Your task to perform on an android device: Open the web browser Image 0: 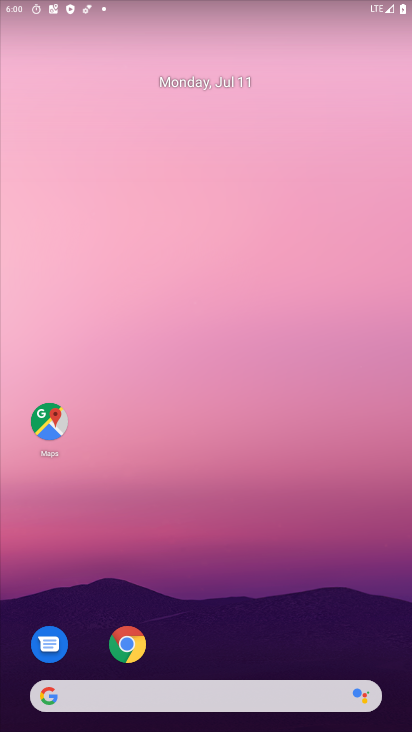
Step 0: drag from (311, 622) to (321, 0)
Your task to perform on an android device: Open the web browser Image 1: 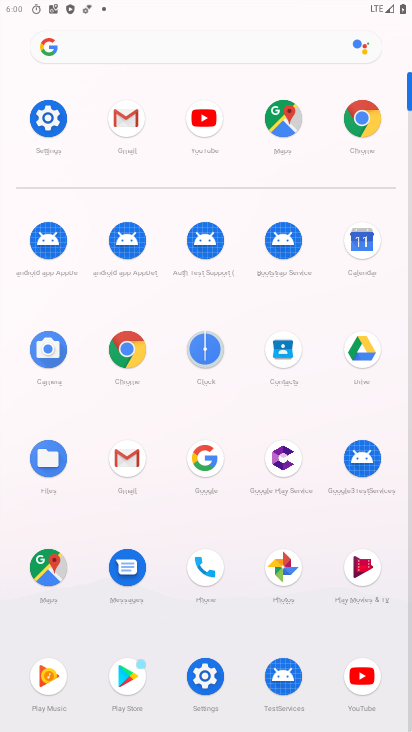
Step 1: click (136, 361)
Your task to perform on an android device: Open the web browser Image 2: 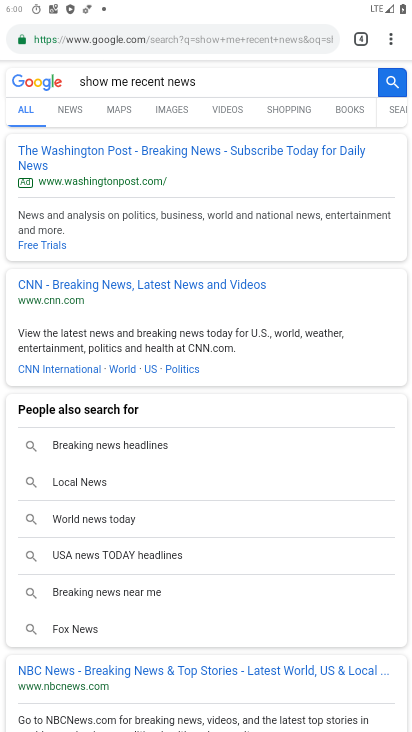
Step 2: drag from (394, 32) to (298, 81)
Your task to perform on an android device: Open the web browser Image 3: 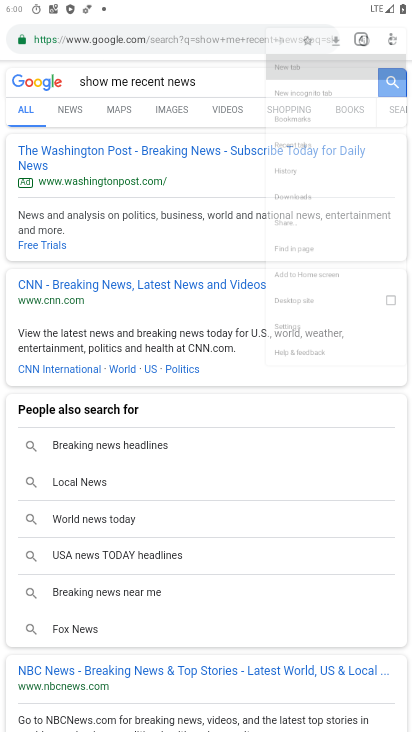
Step 3: click (298, 81)
Your task to perform on an android device: Open the web browser Image 4: 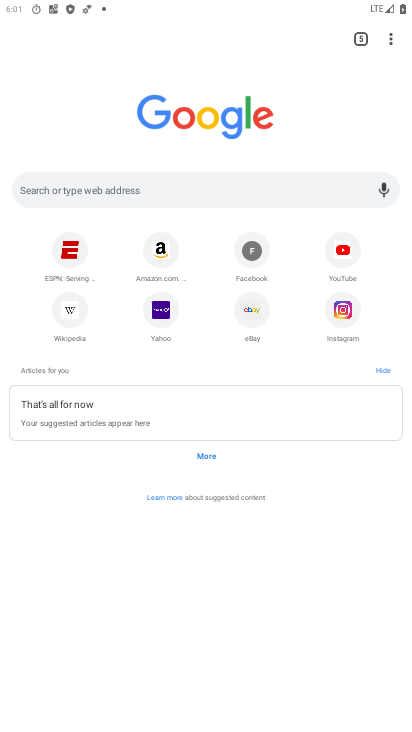
Step 4: task complete